Your task to perform on an android device: Open location settings Image 0: 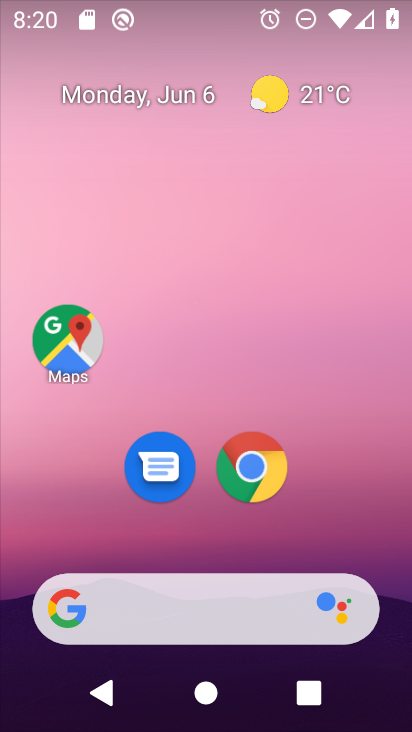
Step 0: drag from (367, 539) to (357, 221)
Your task to perform on an android device: Open location settings Image 1: 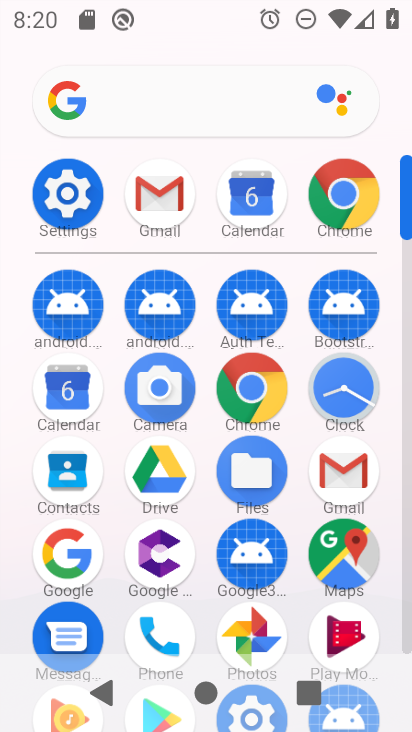
Step 1: click (81, 211)
Your task to perform on an android device: Open location settings Image 2: 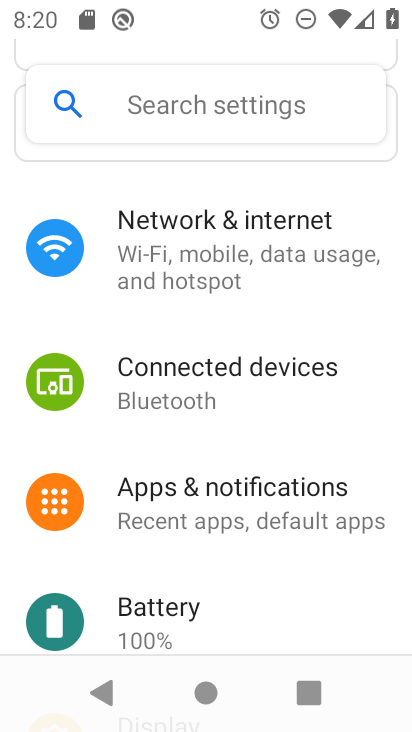
Step 2: drag from (366, 446) to (382, 360)
Your task to perform on an android device: Open location settings Image 3: 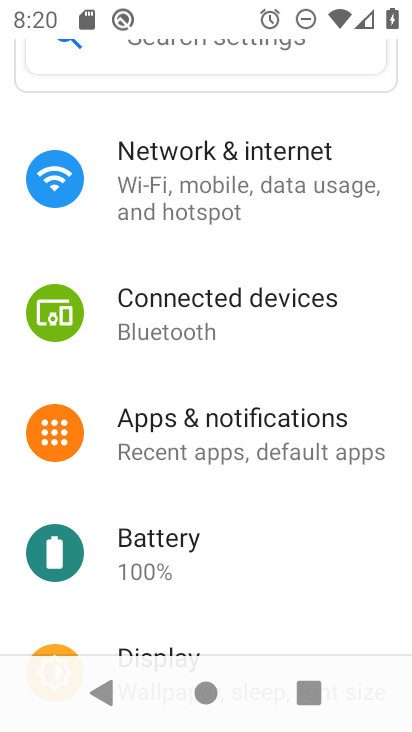
Step 3: drag from (368, 525) to (381, 427)
Your task to perform on an android device: Open location settings Image 4: 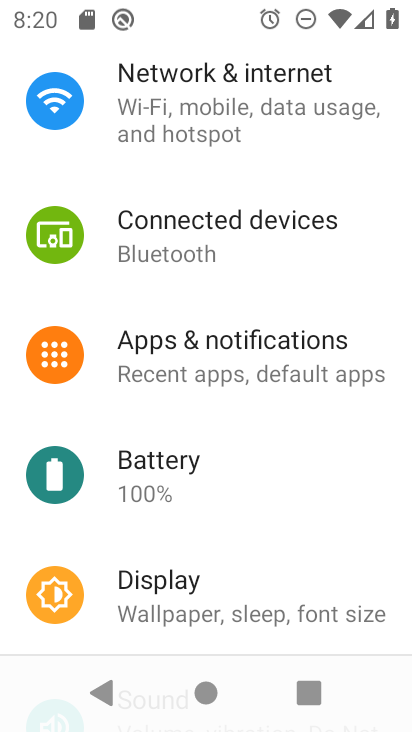
Step 4: drag from (358, 526) to (357, 455)
Your task to perform on an android device: Open location settings Image 5: 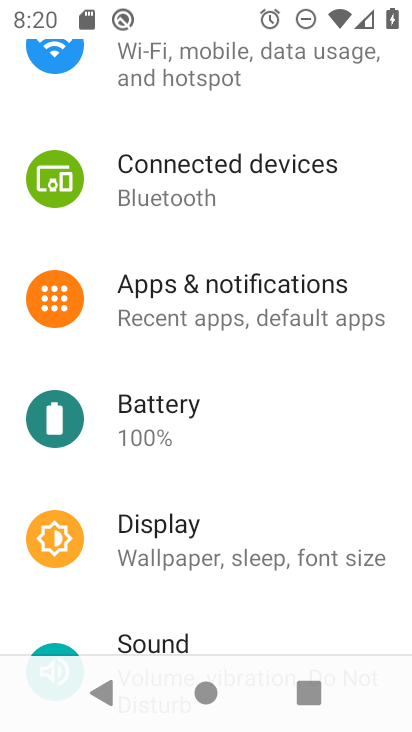
Step 5: drag from (333, 577) to (345, 464)
Your task to perform on an android device: Open location settings Image 6: 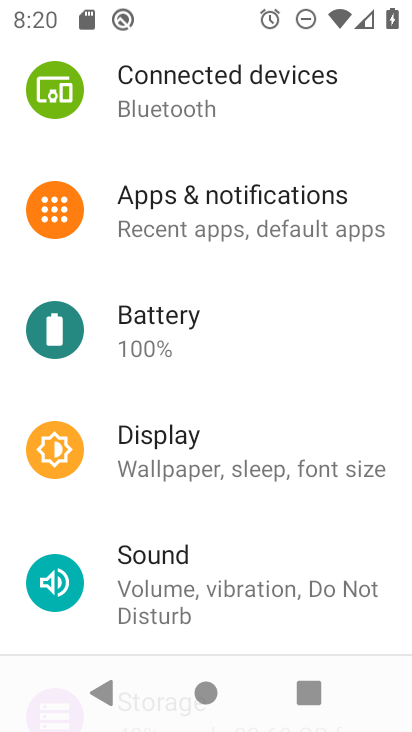
Step 6: drag from (329, 528) to (341, 458)
Your task to perform on an android device: Open location settings Image 7: 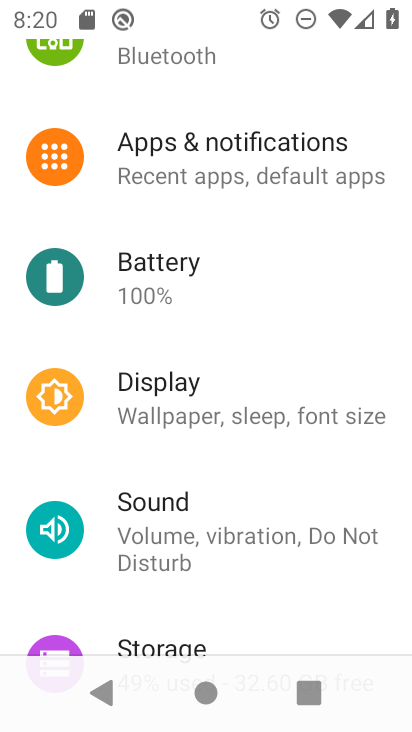
Step 7: drag from (339, 548) to (335, 455)
Your task to perform on an android device: Open location settings Image 8: 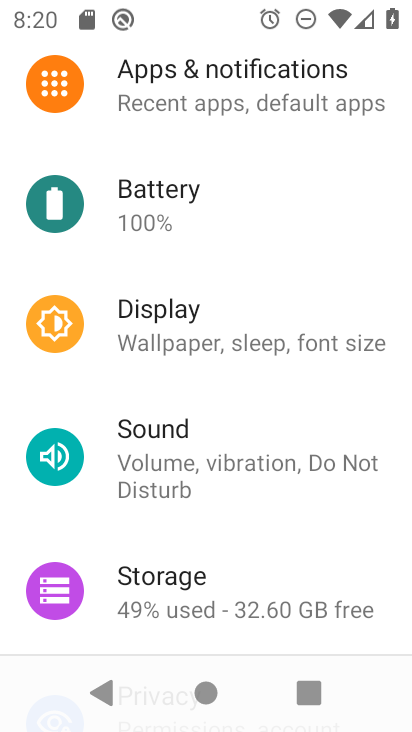
Step 8: drag from (333, 543) to (333, 473)
Your task to perform on an android device: Open location settings Image 9: 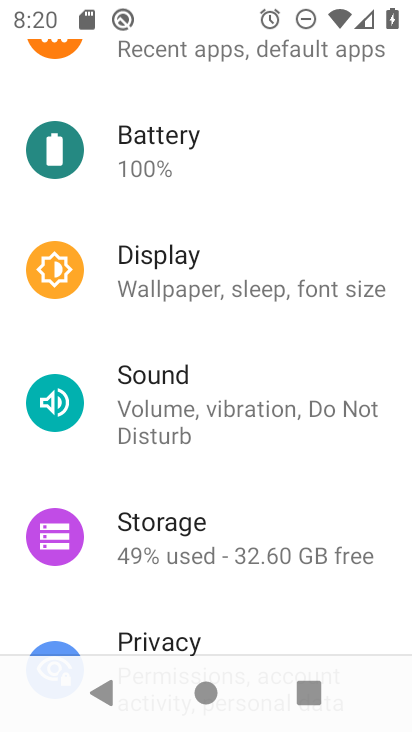
Step 9: drag from (339, 580) to (335, 495)
Your task to perform on an android device: Open location settings Image 10: 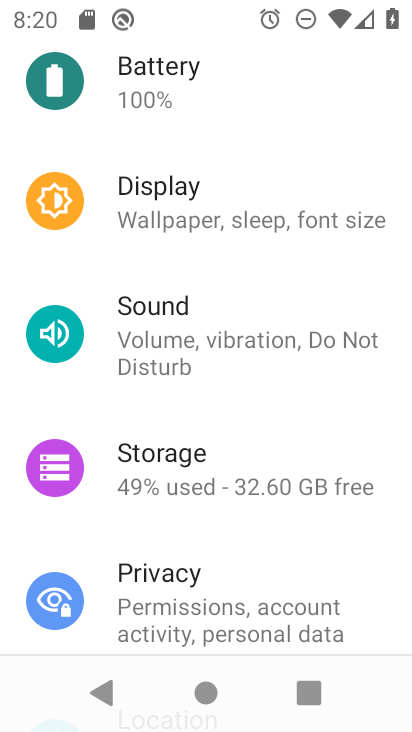
Step 10: drag from (342, 560) to (358, 443)
Your task to perform on an android device: Open location settings Image 11: 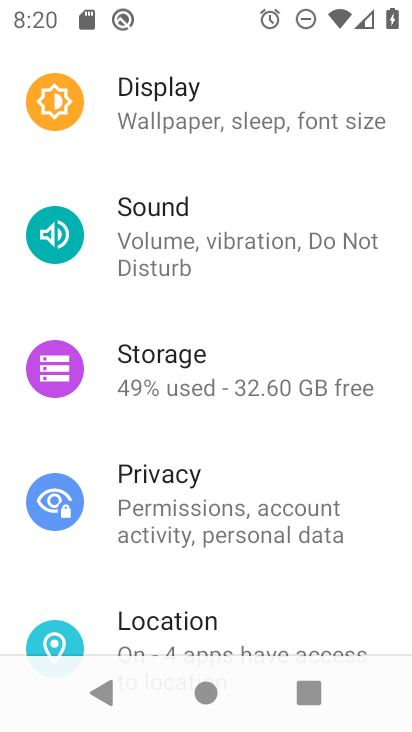
Step 11: drag from (377, 566) to (387, 447)
Your task to perform on an android device: Open location settings Image 12: 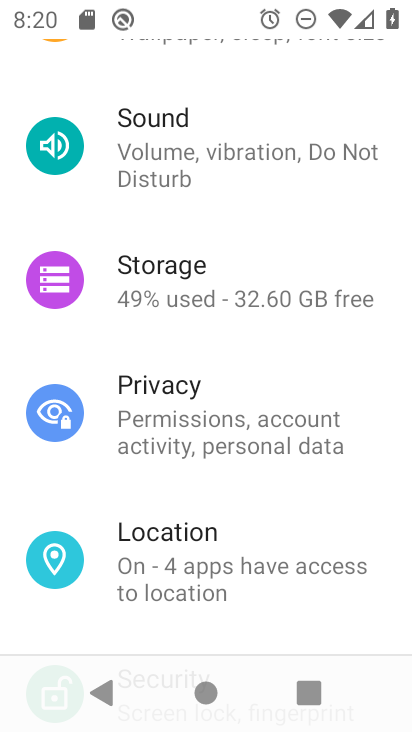
Step 12: drag from (358, 594) to (366, 468)
Your task to perform on an android device: Open location settings Image 13: 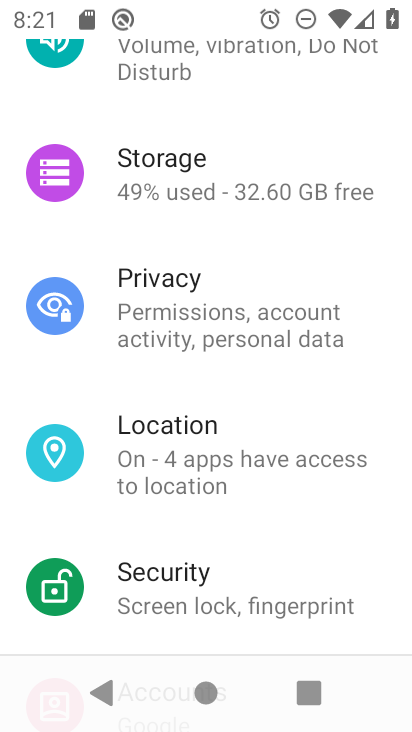
Step 13: drag from (356, 553) to (363, 453)
Your task to perform on an android device: Open location settings Image 14: 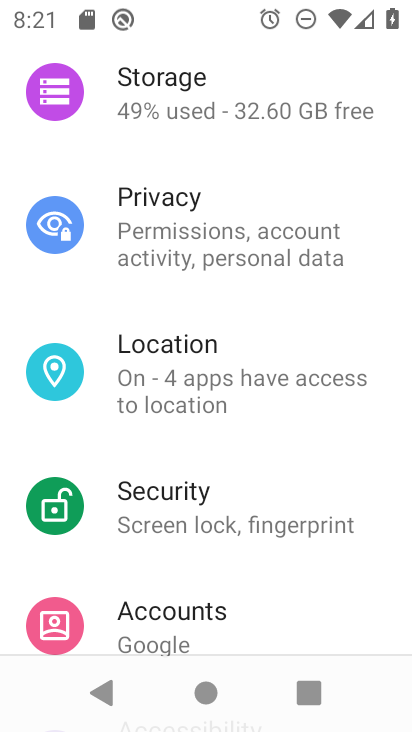
Step 14: drag from (362, 567) to (364, 485)
Your task to perform on an android device: Open location settings Image 15: 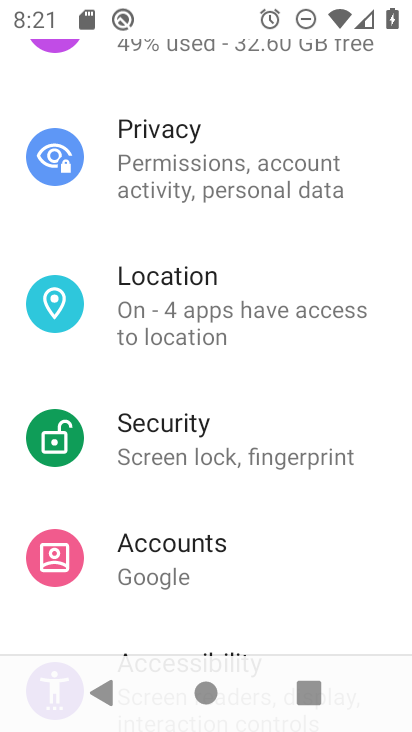
Step 15: click (225, 314)
Your task to perform on an android device: Open location settings Image 16: 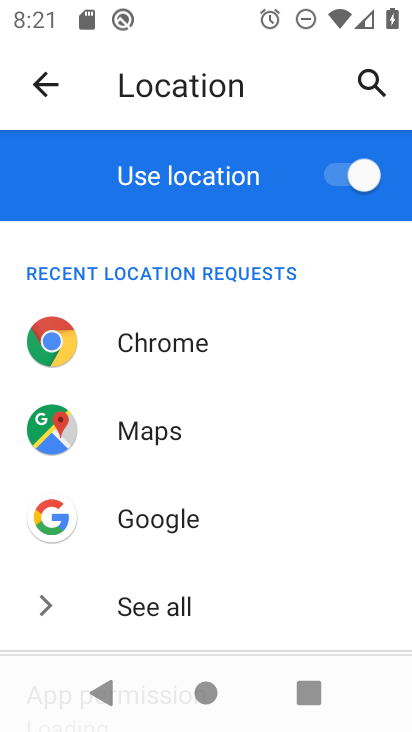
Step 16: task complete